Your task to perform on an android device: turn on bluetooth scan Image 0: 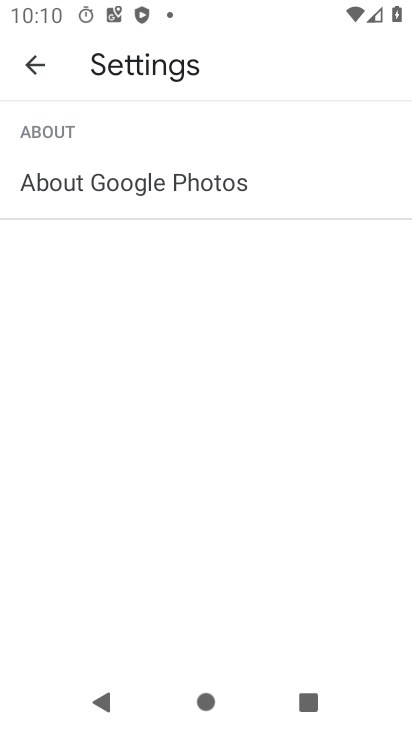
Step 0: press home button
Your task to perform on an android device: turn on bluetooth scan Image 1: 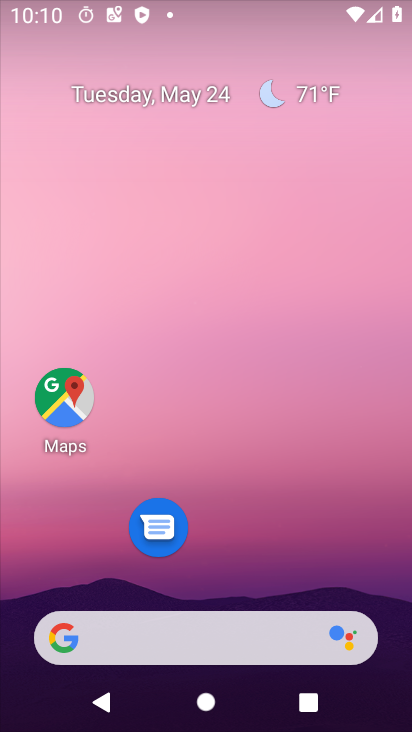
Step 1: drag from (268, 550) to (267, 17)
Your task to perform on an android device: turn on bluetooth scan Image 2: 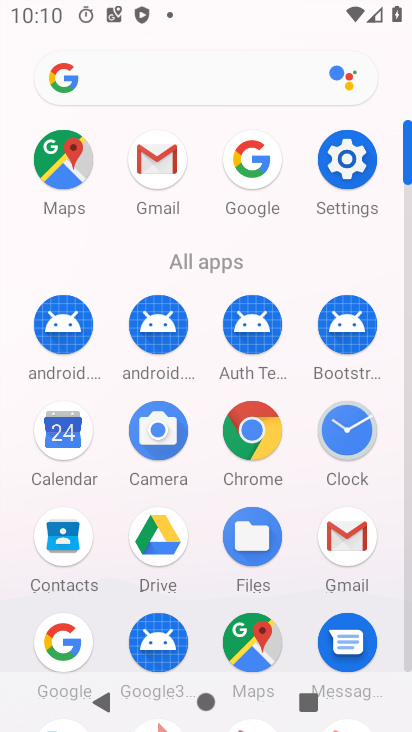
Step 2: click (343, 160)
Your task to perform on an android device: turn on bluetooth scan Image 3: 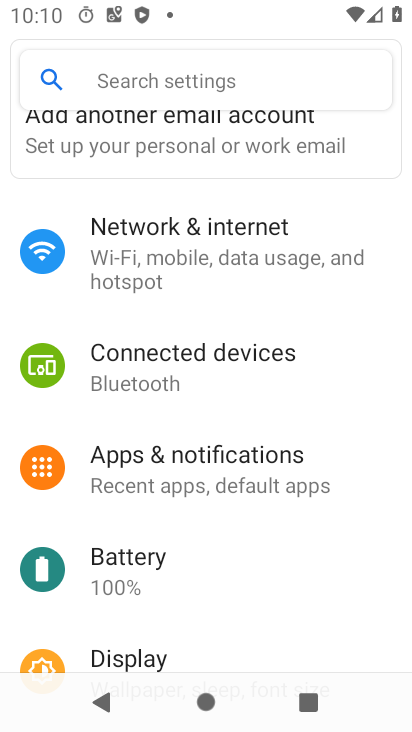
Step 3: drag from (227, 576) to (262, 94)
Your task to perform on an android device: turn on bluetooth scan Image 4: 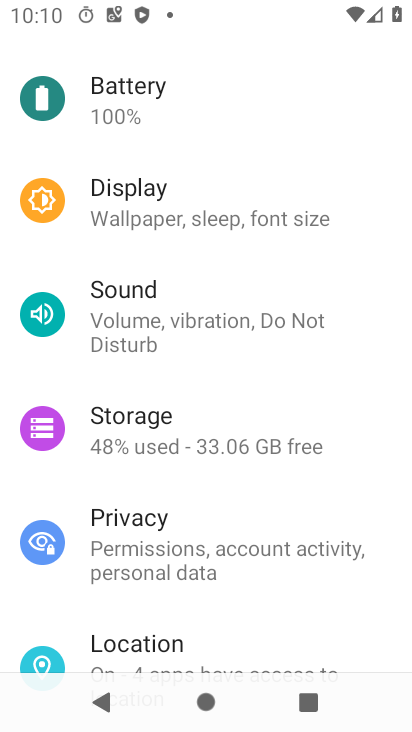
Step 4: drag from (185, 574) to (209, 247)
Your task to perform on an android device: turn on bluetooth scan Image 5: 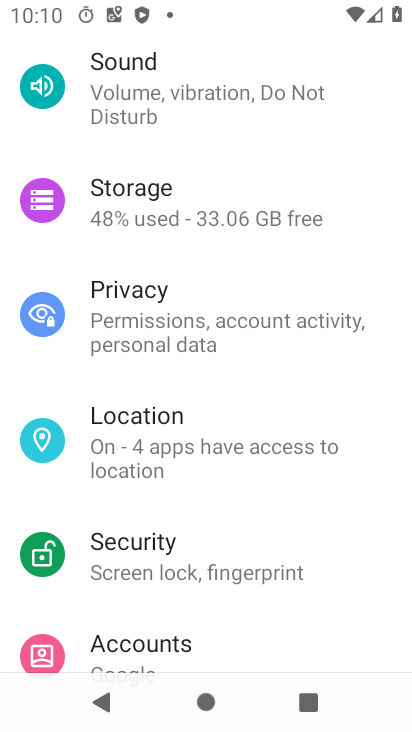
Step 5: click (200, 437)
Your task to perform on an android device: turn on bluetooth scan Image 6: 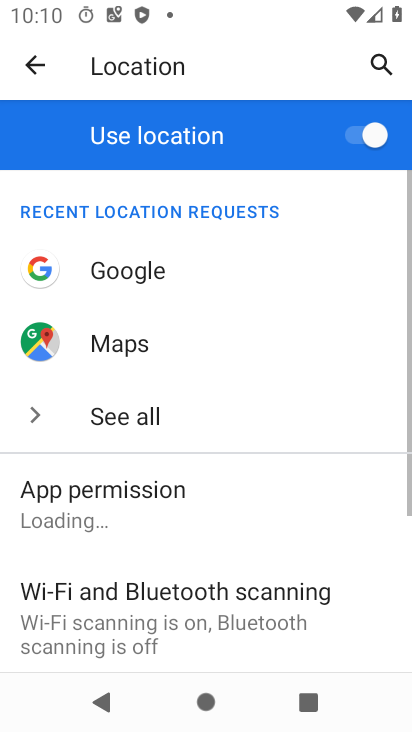
Step 6: drag from (189, 553) to (132, 269)
Your task to perform on an android device: turn on bluetooth scan Image 7: 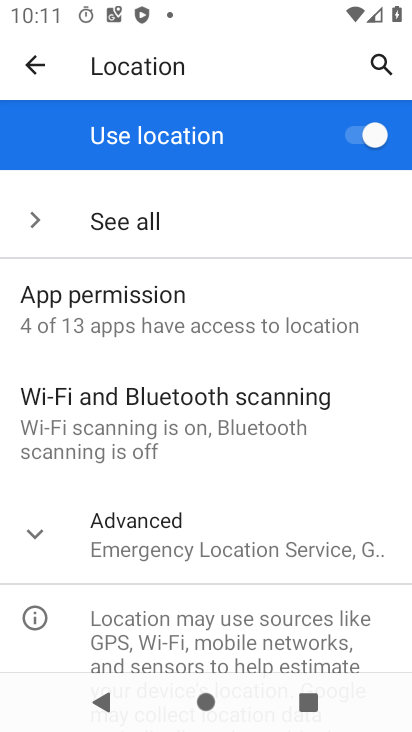
Step 7: click (223, 425)
Your task to perform on an android device: turn on bluetooth scan Image 8: 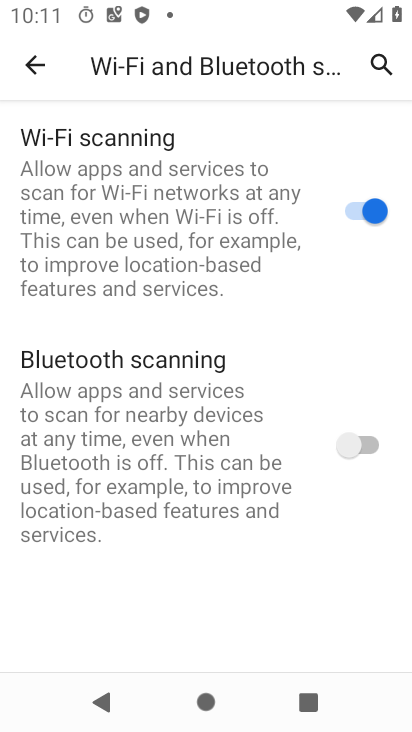
Step 8: click (349, 444)
Your task to perform on an android device: turn on bluetooth scan Image 9: 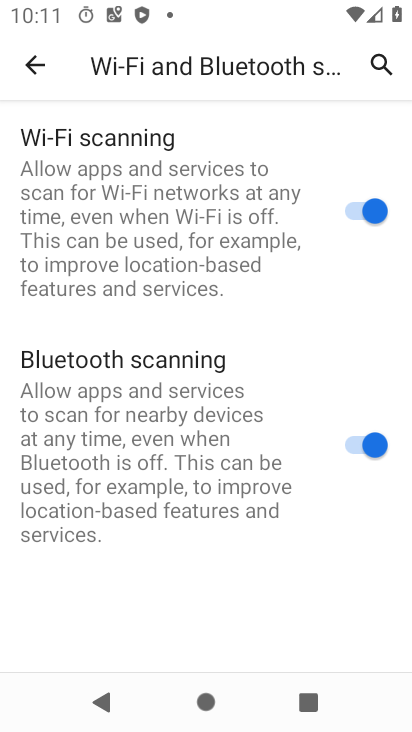
Step 9: task complete